Your task to perform on an android device: Go to settings Image 0: 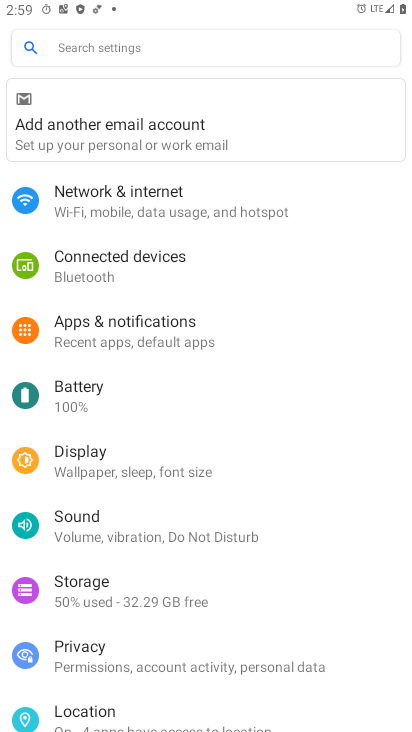
Step 0: press home button
Your task to perform on an android device: Go to settings Image 1: 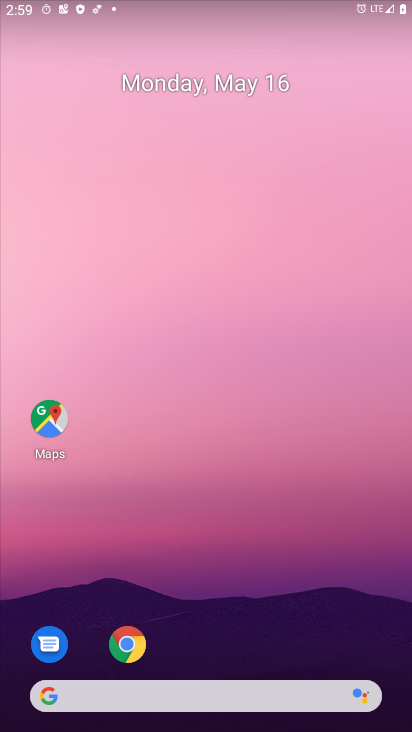
Step 1: drag from (228, 352) to (254, 134)
Your task to perform on an android device: Go to settings Image 2: 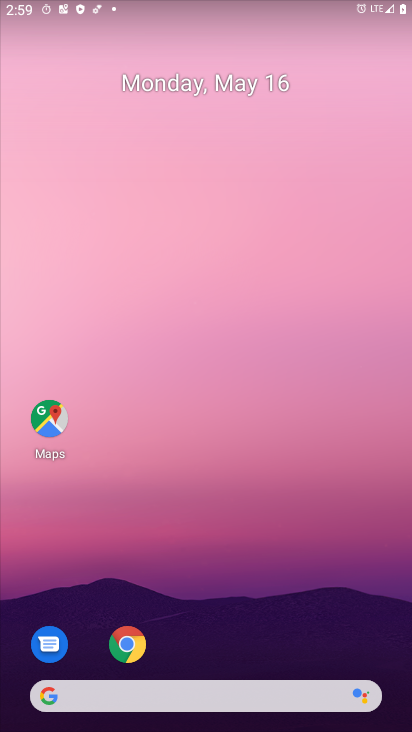
Step 2: drag from (202, 607) to (156, 48)
Your task to perform on an android device: Go to settings Image 3: 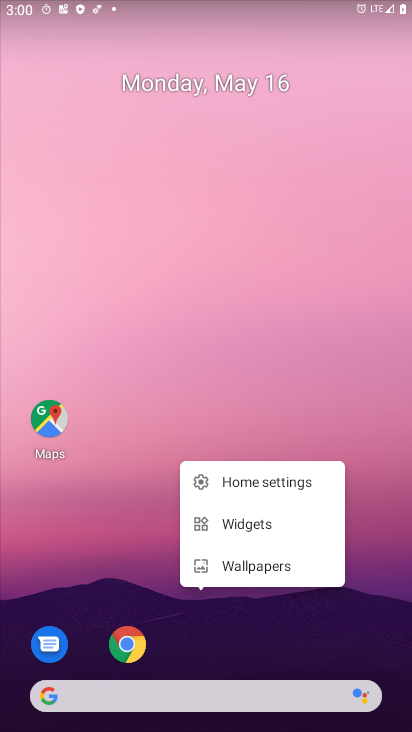
Step 3: click (255, 360)
Your task to perform on an android device: Go to settings Image 4: 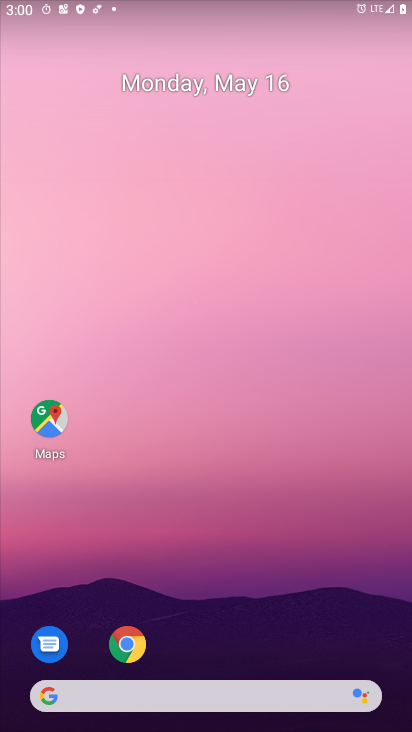
Step 4: drag from (166, 283) to (184, 120)
Your task to perform on an android device: Go to settings Image 5: 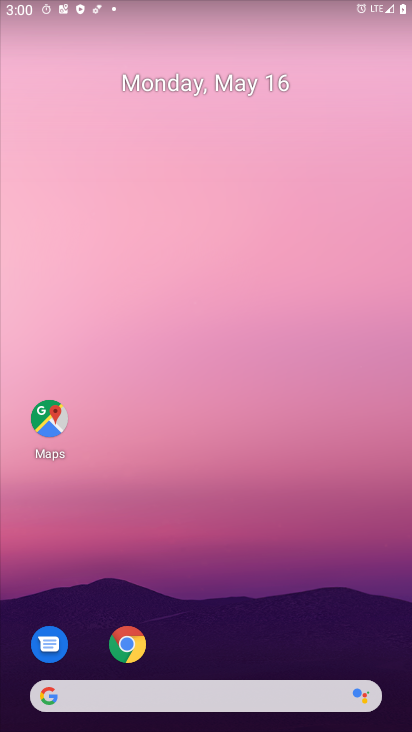
Step 5: drag from (256, 681) to (245, 55)
Your task to perform on an android device: Go to settings Image 6: 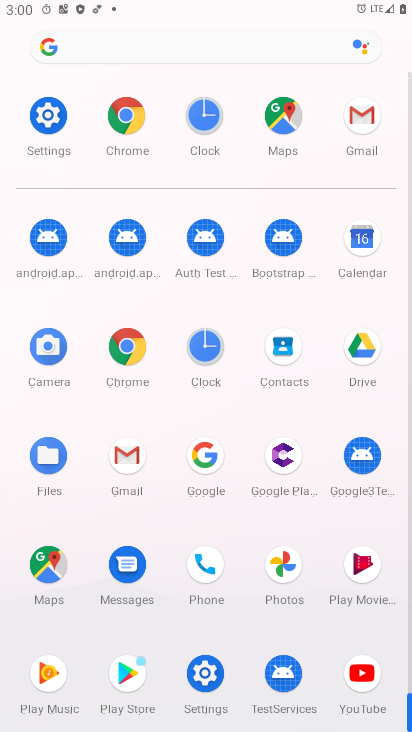
Step 6: click (204, 666)
Your task to perform on an android device: Go to settings Image 7: 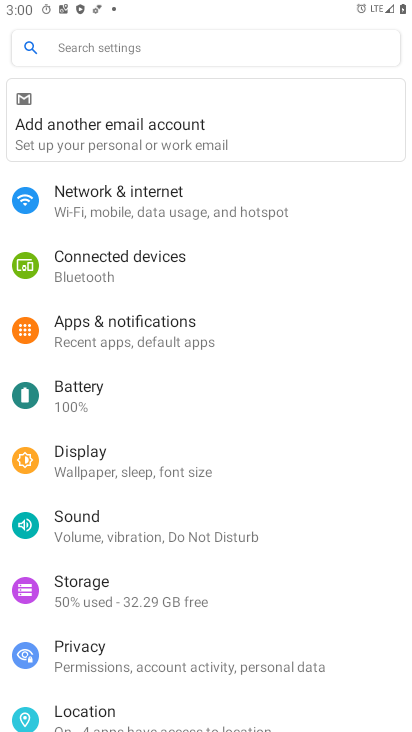
Step 7: task complete